Your task to perform on an android device: toggle notifications settings in the gmail app Image 0: 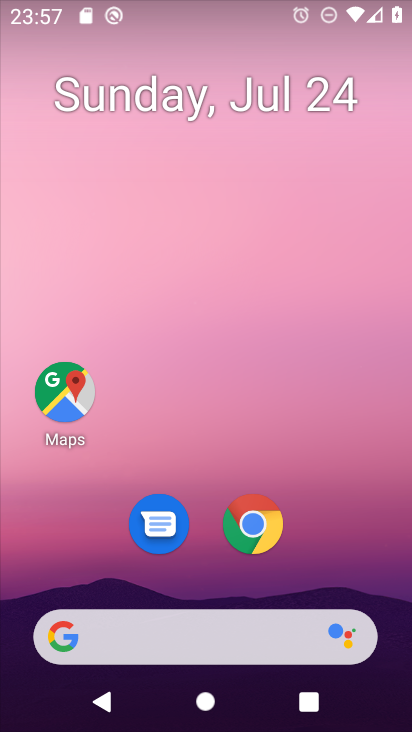
Step 0: press home button
Your task to perform on an android device: toggle notifications settings in the gmail app Image 1: 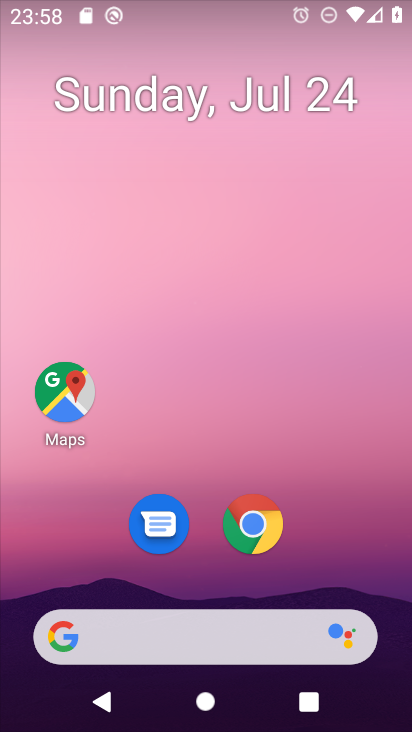
Step 1: drag from (243, 356) to (300, 218)
Your task to perform on an android device: toggle notifications settings in the gmail app Image 2: 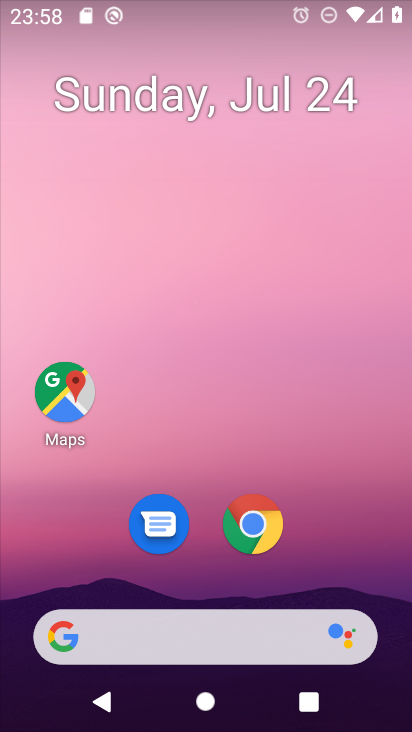
Step 2: drag from (191, 644) to (288, 46)
Your task to perform on an android device: toggle notifications settings in the gmail app Image 3: 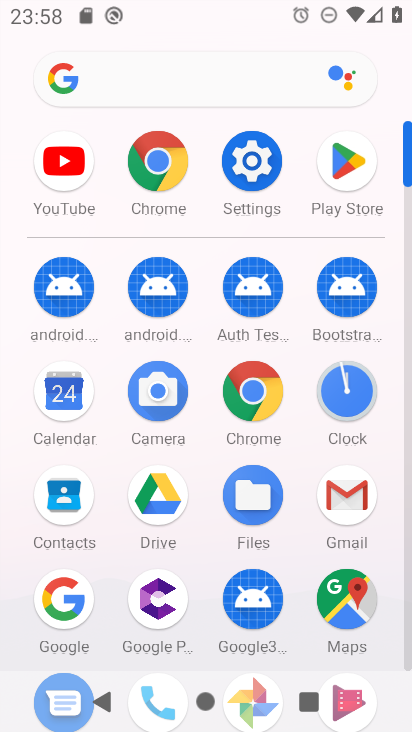
Step 3: click (337, 486)
Your task to perform on an android device: toggle notifications settings in the gmail app Image 4: 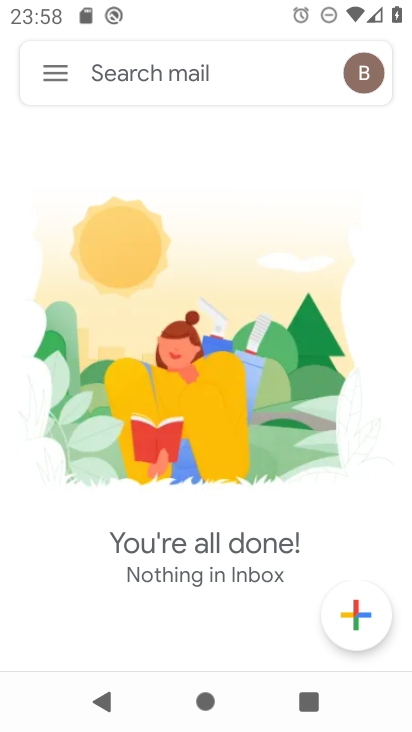
Step 4: click (59, 77)
Your task to perform on an android device: toggle notifications settings in the gmail app Image 5: 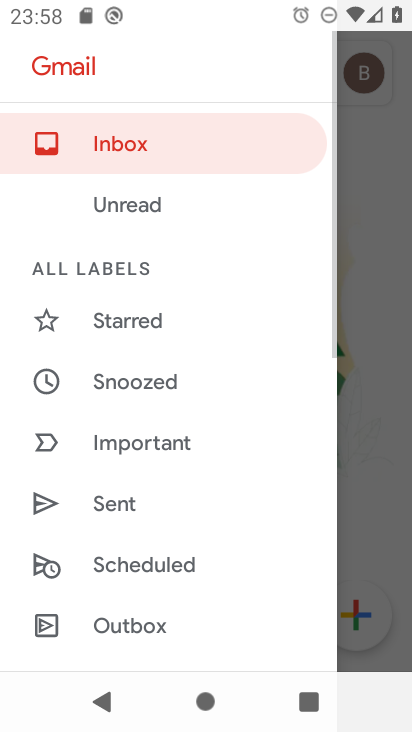
Step 5: drag from (196, 631) to (271, 88)
Your task to perform on an android device: toggle notifications settings in the gmail app Image 6: 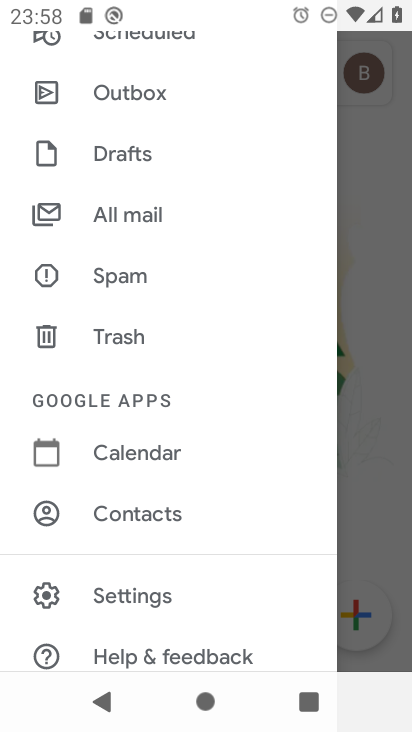
Step 6: click (165, 601)
Your task to perform on an android device: toggle notifications settings in the gmail app Image 7: 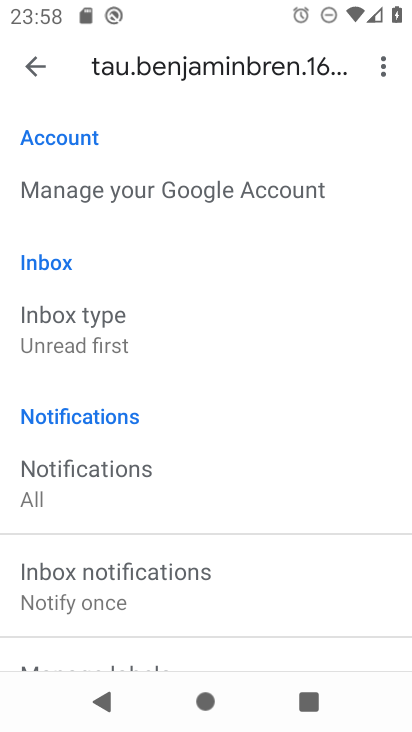
Step 7: drag from (288, 483) to (320, 282)
Your task to perform on an android device: toggle notifications settings in the gmail app Image 8: 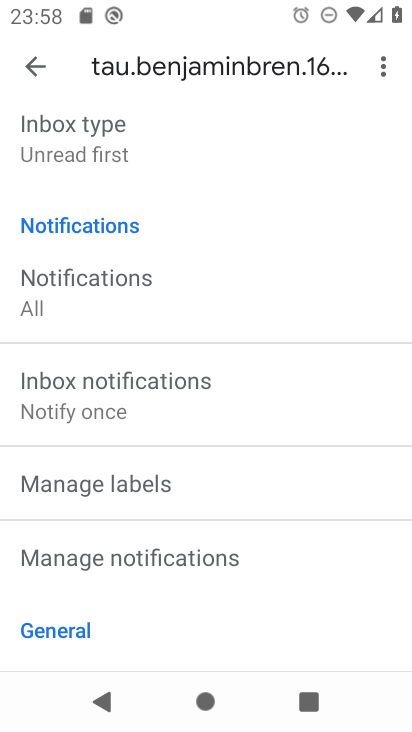
Step 8: click (112, 298)
Your task to perform on an android device: toggle notifications settings in the gmail app Image 9: 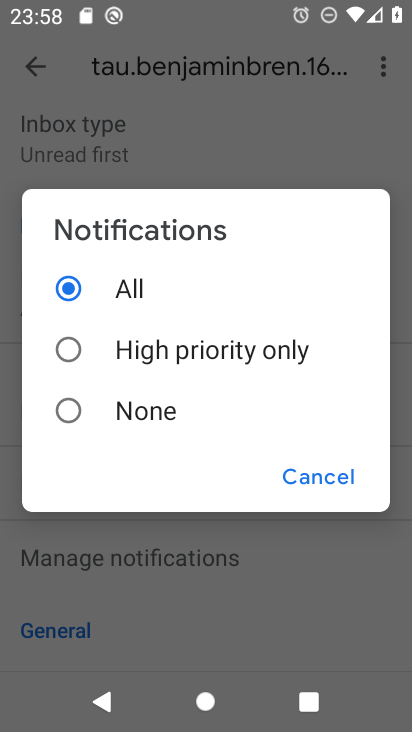
Step 9: click (62, 408)
Your task to perform on an android device: toggle notifications settings in the gmail app Image 10: 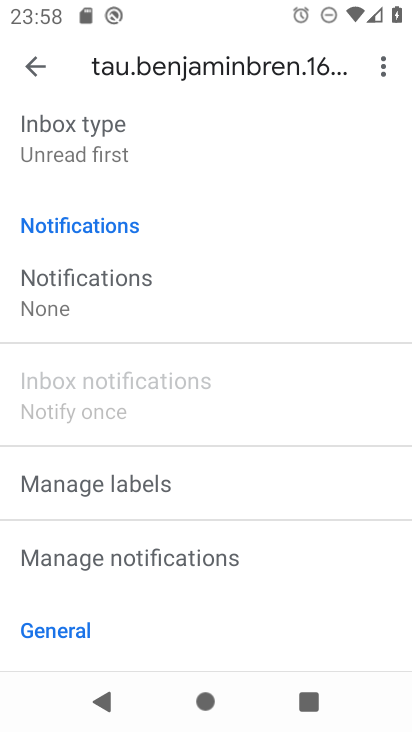
Step 10: task complete